Your task to perform on an android device: Open battery settings Image 0: 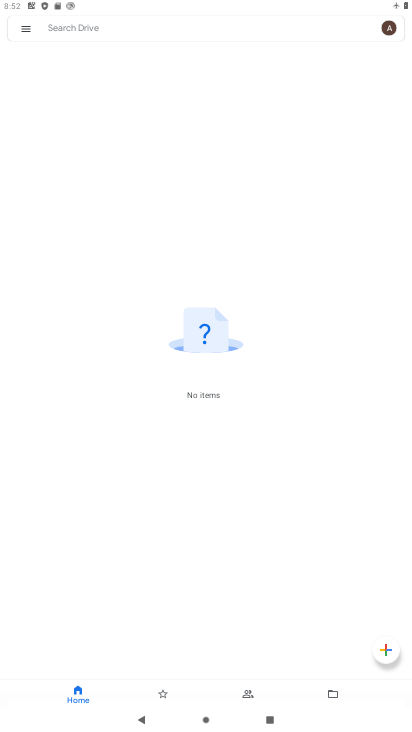
Step 0: press home button
Your task to perform on an android device: Open battery settings Image 1: 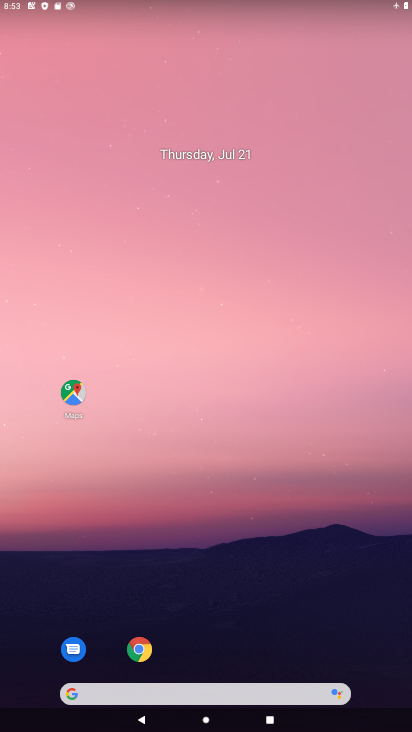
Step 1: drag from (214, 656) to (172, 235)
Your task to perform on an android device: Open battery settings Image 2: 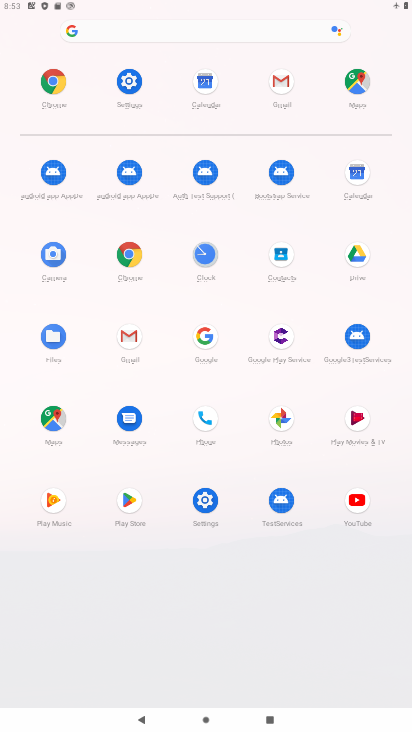
Step 2: click (217, 515)
Your task to perform on an android device: Open battery settings Image 3: 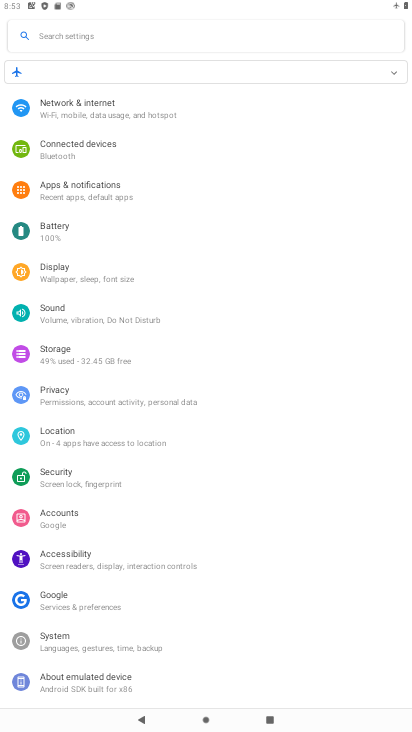
Step 3: click (74, 228)
Your task to perform on an android device: Open battery settings Image 4: 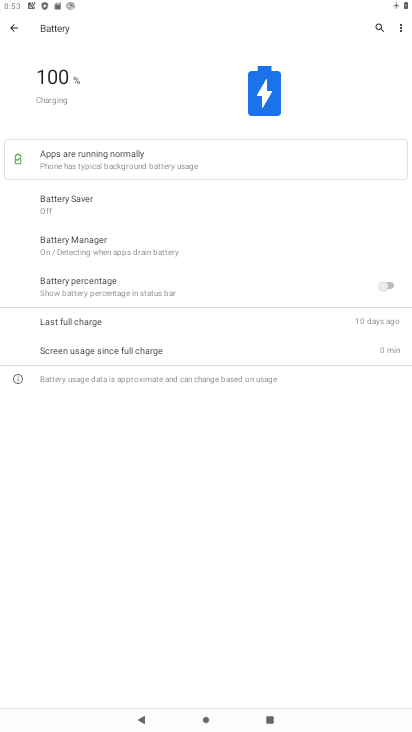
Step 4: task complete